Your task to perform on an android device: create a new album in the google photos Image 0: 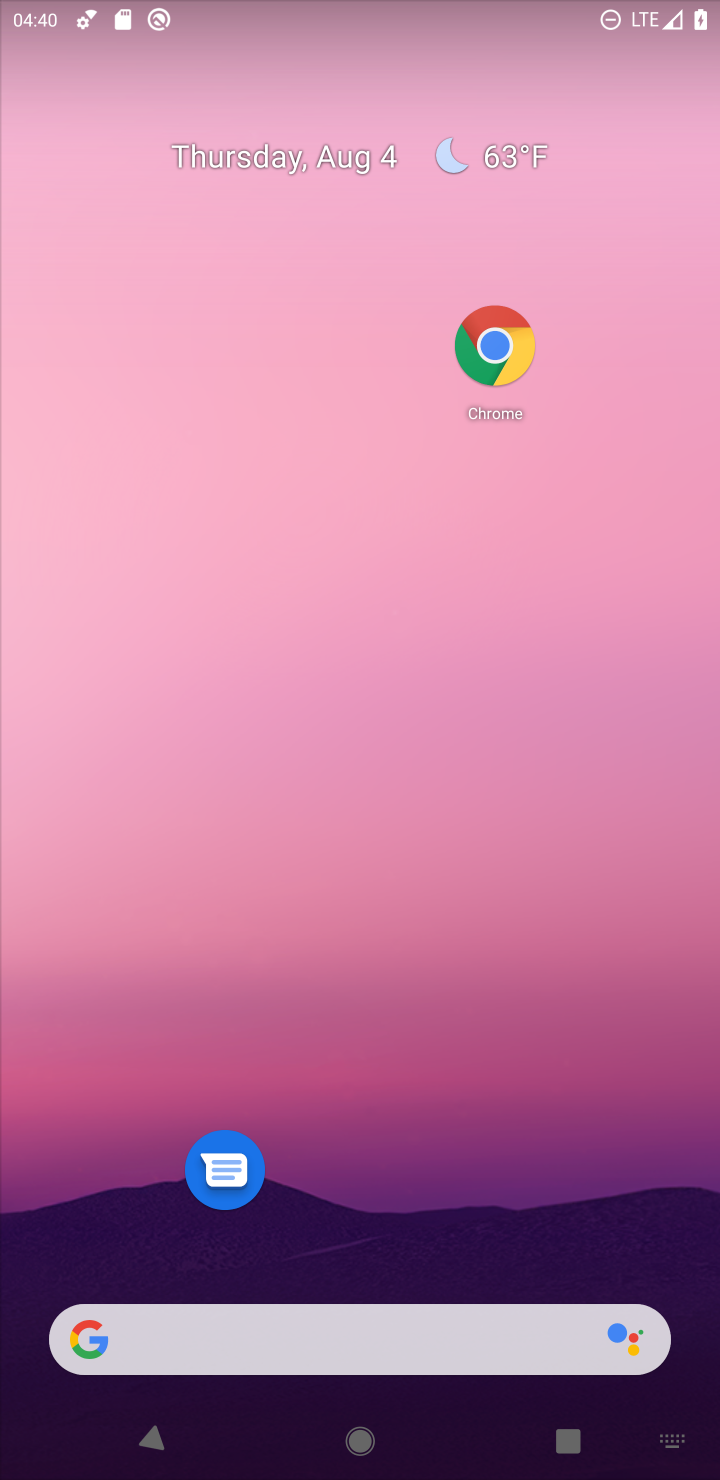
Step 0: drag from (606, 1240) to (533, 98)
Your task to perform on an android device: create a new album in the google photos Image 1: 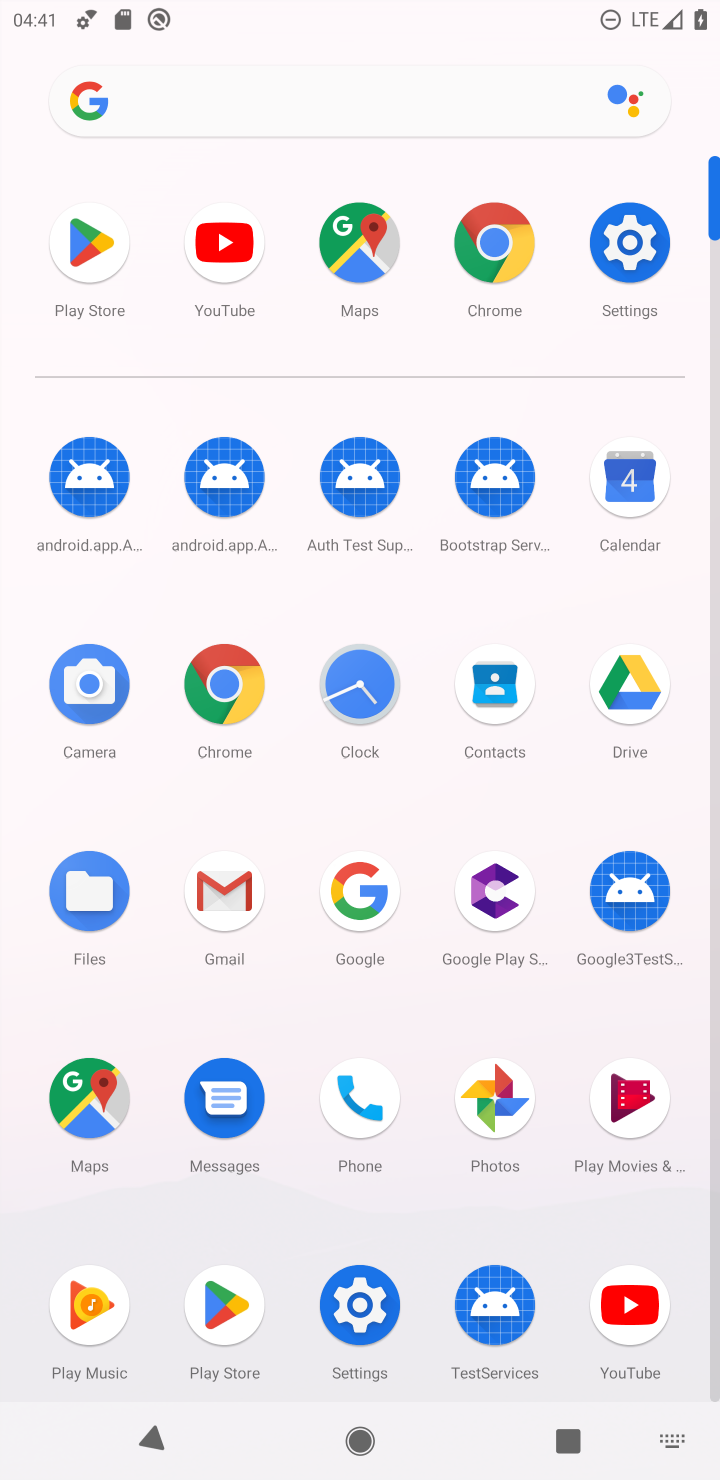
Step 1: click (472, 1084)
Your task to perform on an android device: create a new album in the google photos Image 2: 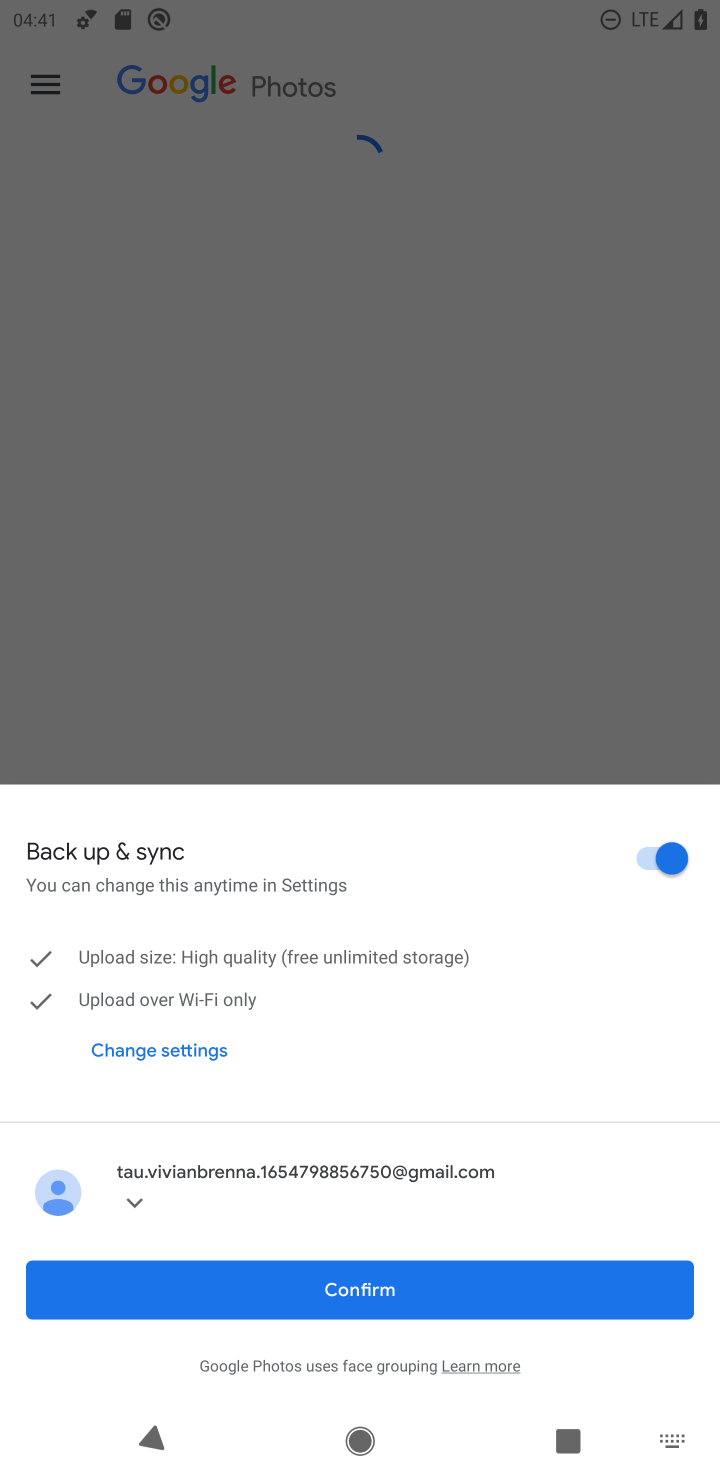
Step 2: click (427, 1278)
Your task to perform on an android device: create a new album in the google photos Image 3: 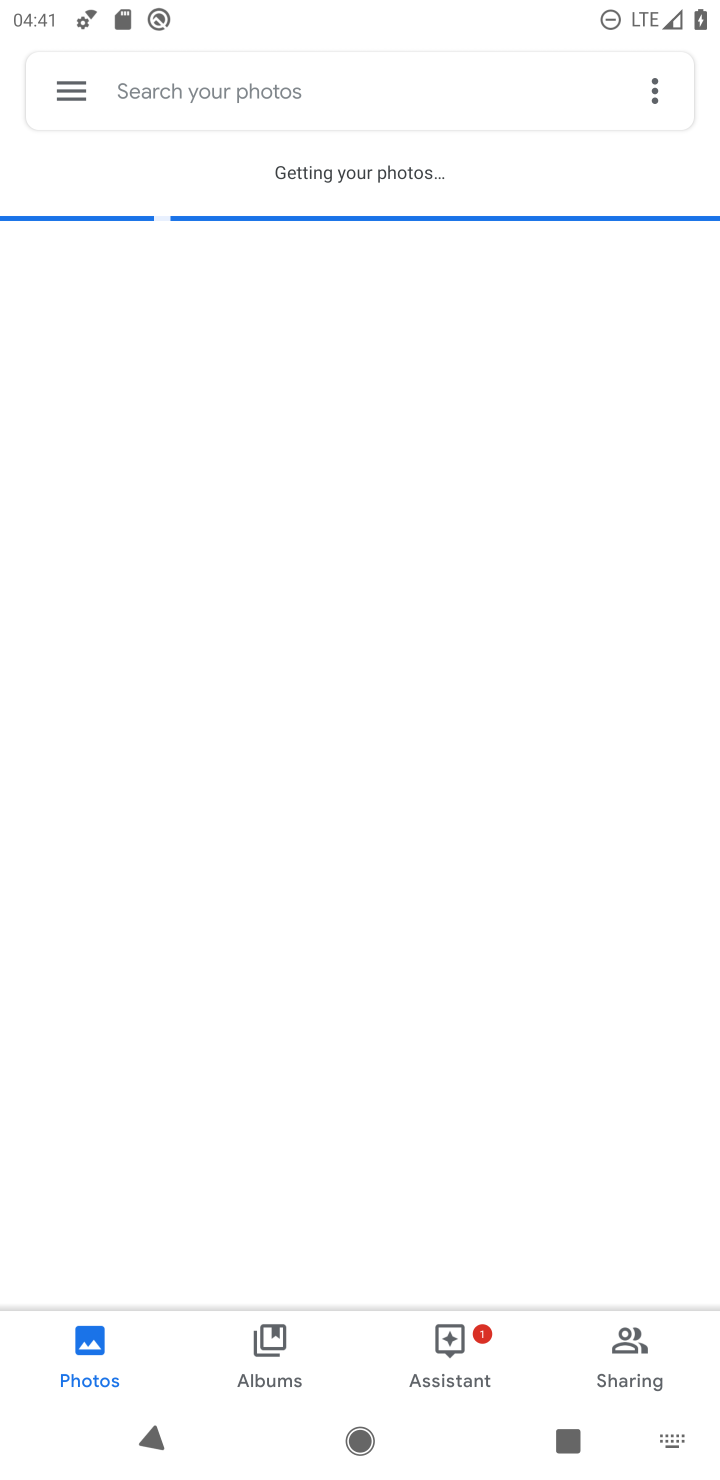
Step 3: click (447, 1351)
Your task to perform on an android device: create a new album in the google photos Image 4: 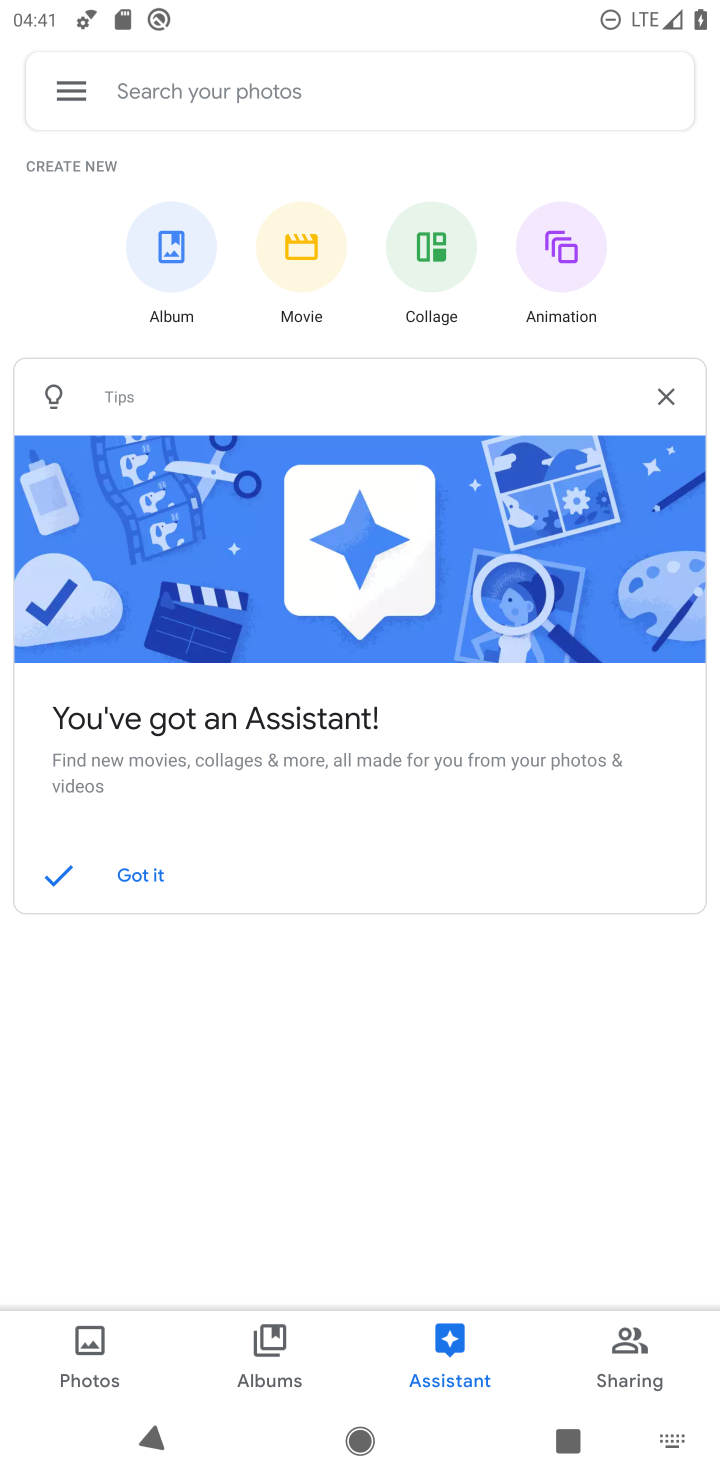
Step 4: click (183, 268)
Your task to perform on an android device: create a new album in the google photos Image 5: 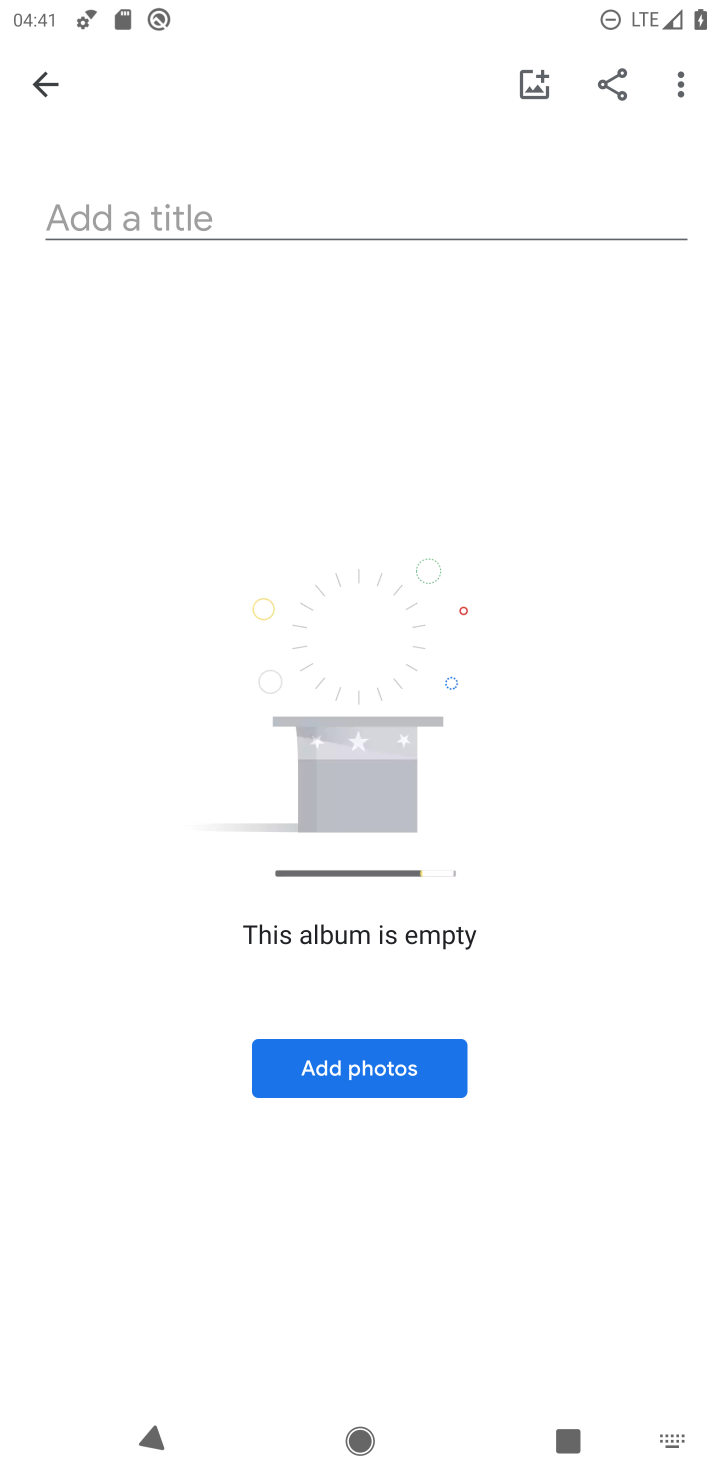
Step 5: click (416, 1069)
Your task to perform on an android device: create a new album in the google photos Image 6: 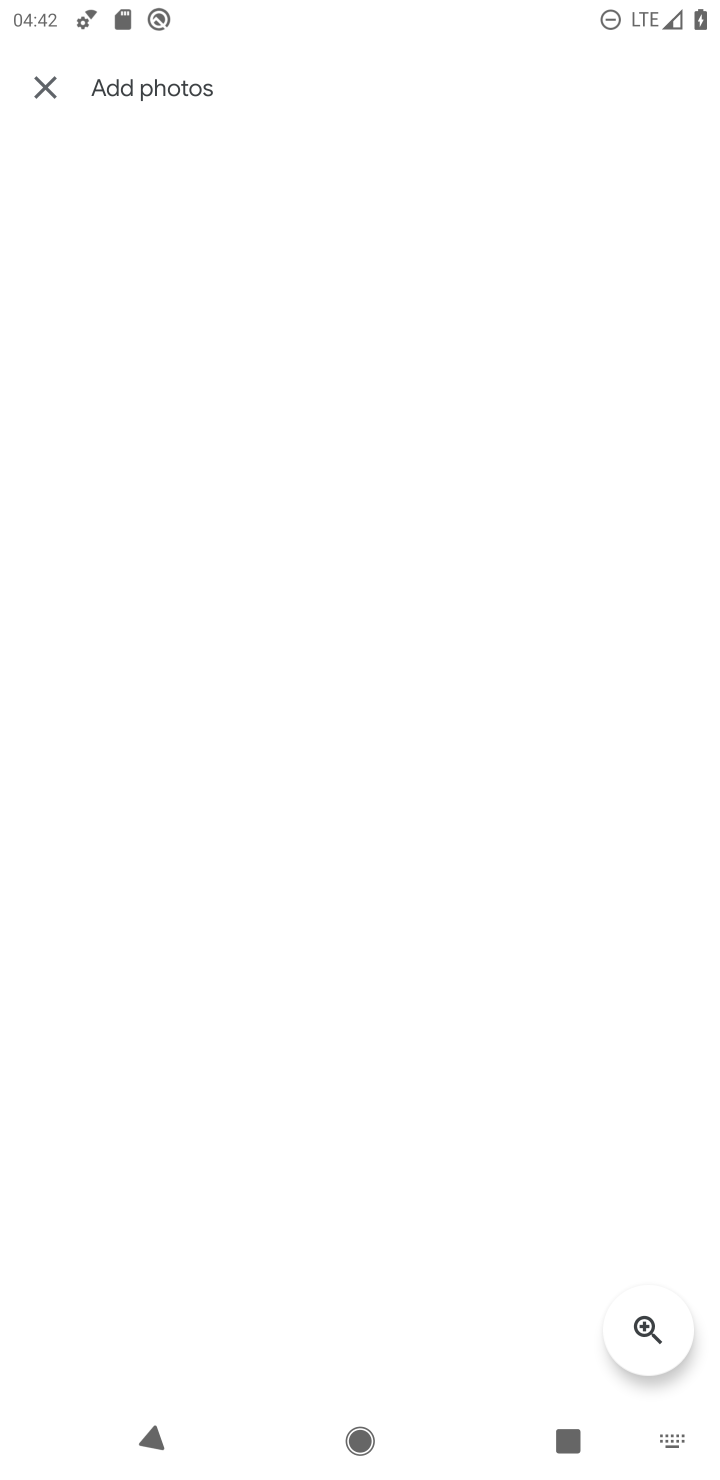
Step 6: task complete